Your task to perform on an android device: Is it going to rain this weekend? Image 0: 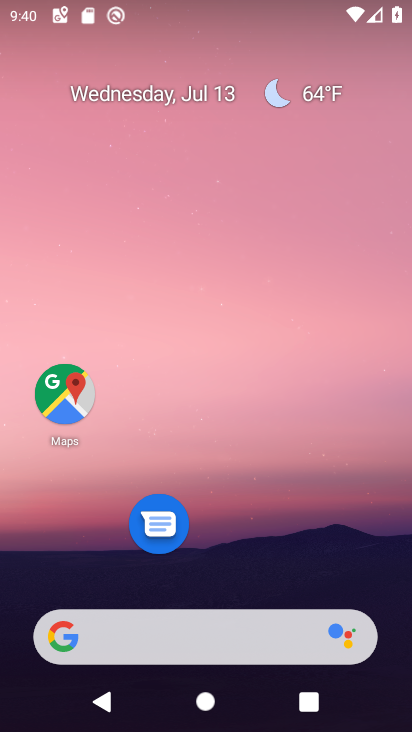
Step 0: drag from (236, 590) to (266, 83)
Your task to perform on an android device: Is it going to rain this weekend? Image 1: 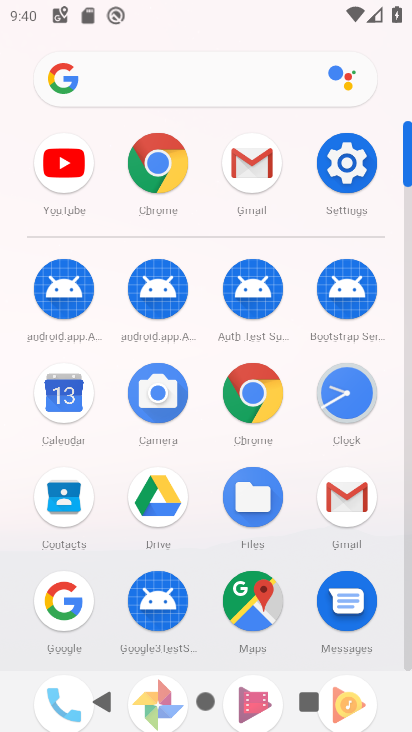
Step 1: click (56, 591)
Your task to perform on an android device: Is it going to rain this weekend? Image 2: 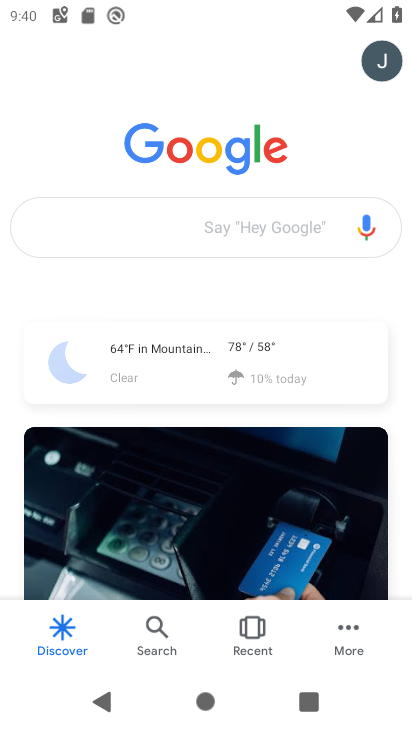
Step 2: click (154, 247)
Your task to perform on an android device: Is it going to rain this weekend? Image 3: 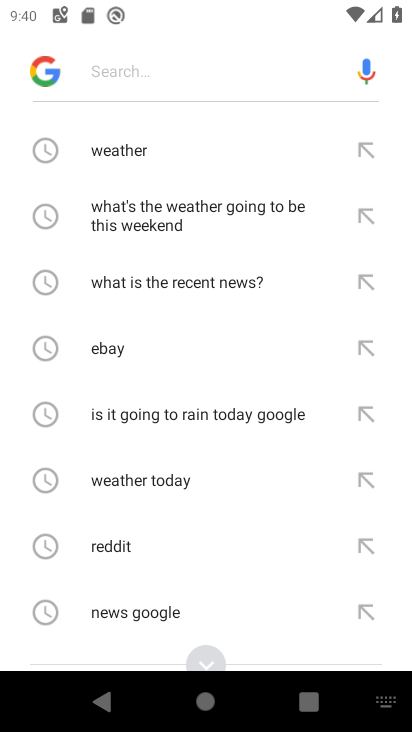
Step 3: click (110, 155)
Your task to perform on an android device: Is it going to rain this weekend? Image 4: 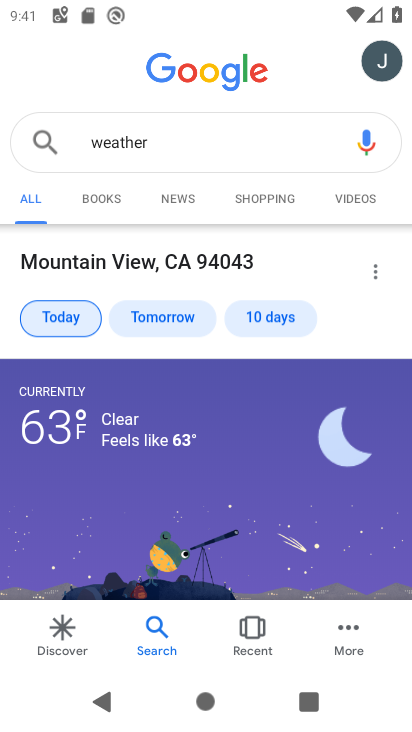
Step 4: click (257, 317)
Your task to perform on an android device: Is it going to rain this weekend? Image 5: 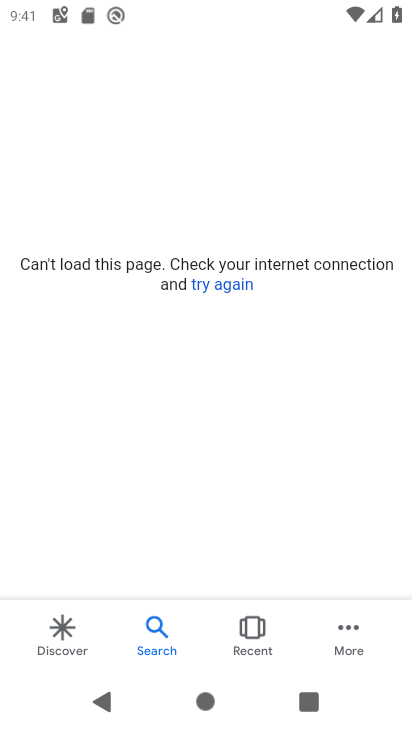
Step 5: click (216, 275)
Your task to perform on an android device: Is it going to rain this weekend? Image 6: 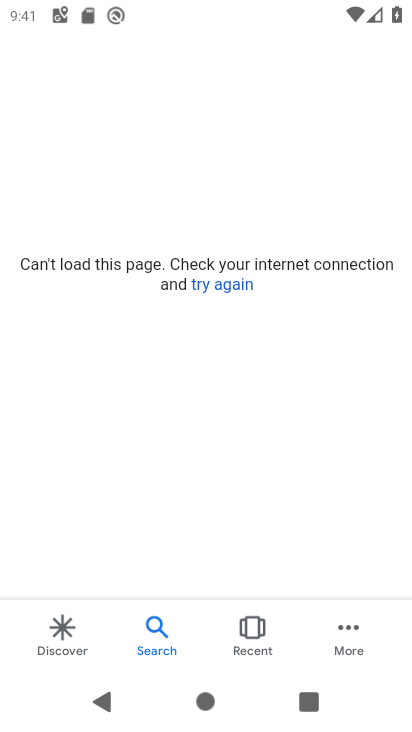
Step 6: task complete